Your task to perform on an android device: Do I have any events today? Image 0: 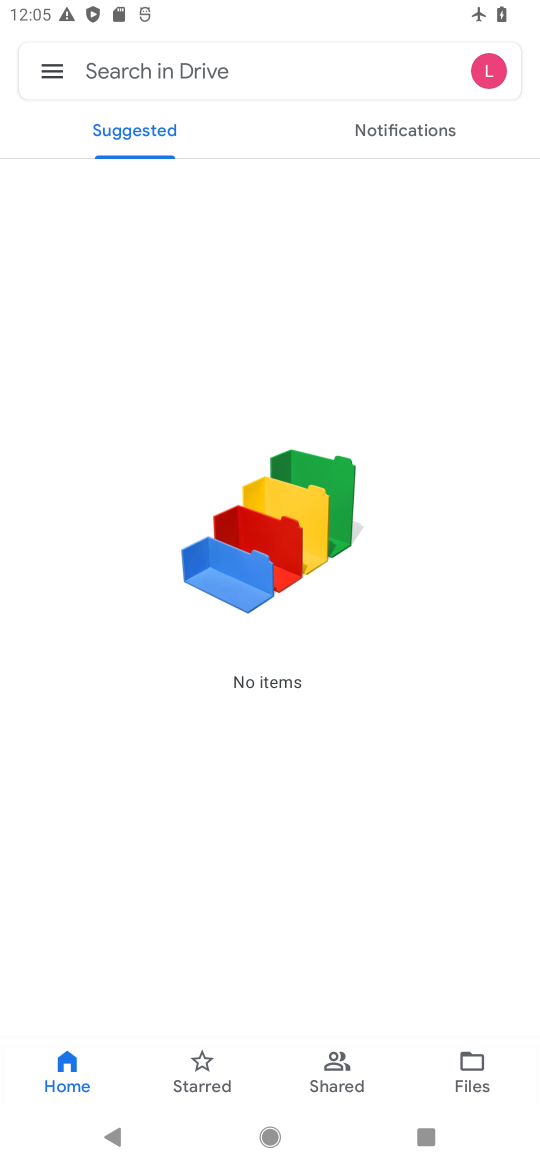
Step 0: press home button
Your task to perform on an android device: Do I have any events today? Image 1: 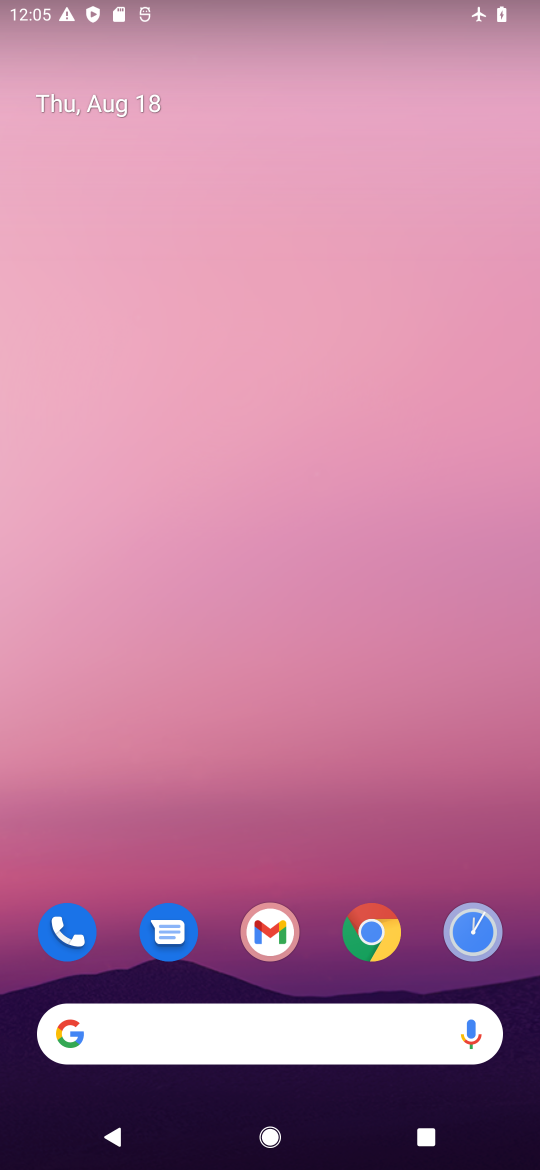
Step 1: drag from (311, 971) to (303, 266)
Your task to perform on an android device: Do I have any events today? Image 2: 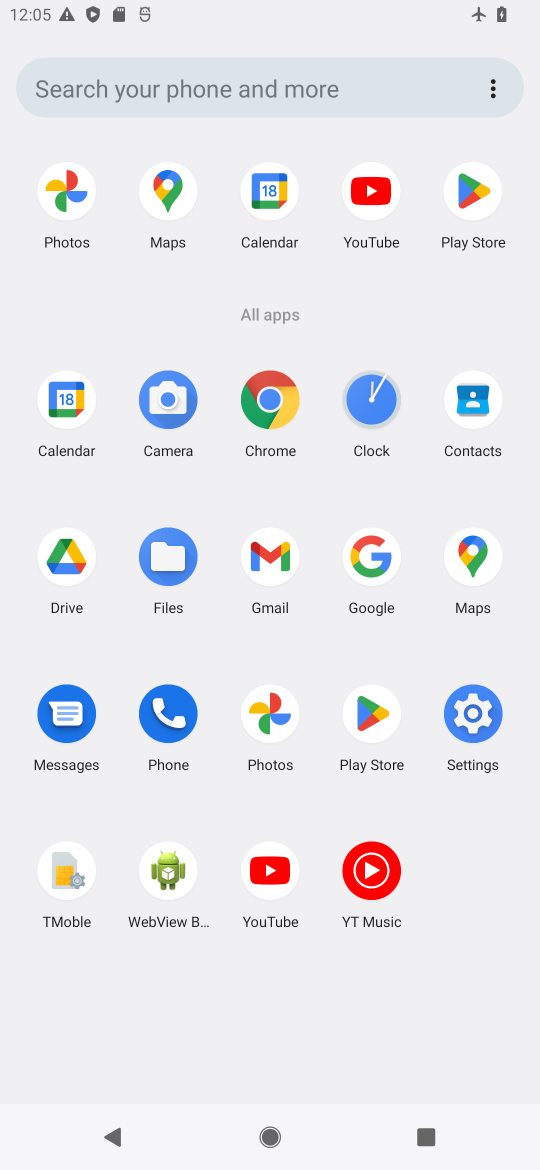
Step 2: click (275, 192)
Your task to perform on an android device: Do I have any events today? Image 3: 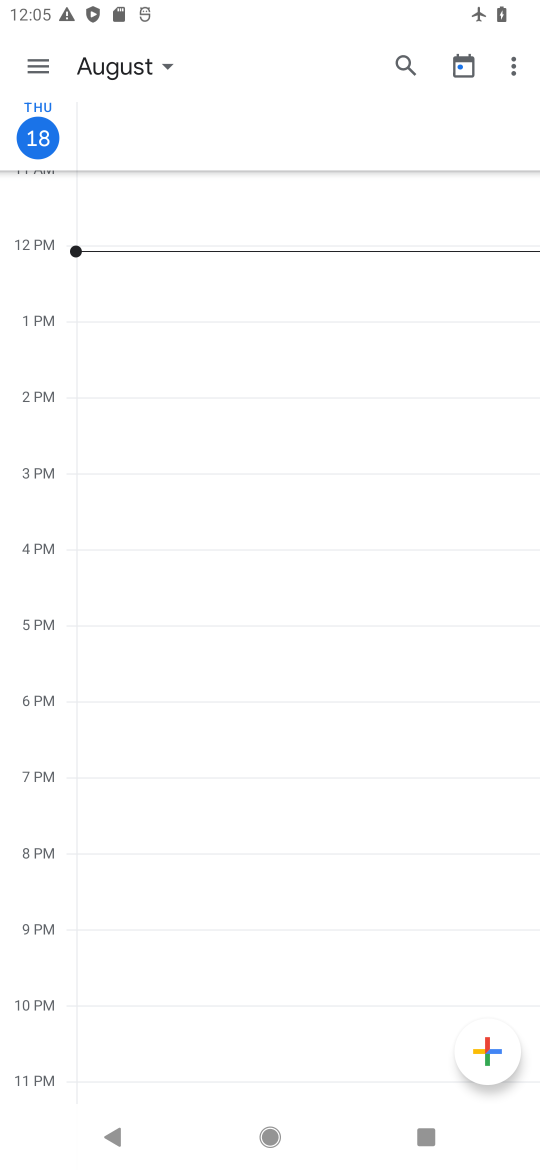
Step 3: task complete